Your task to perform on an android device: turn off notifications settings in the gmail app Image 0: 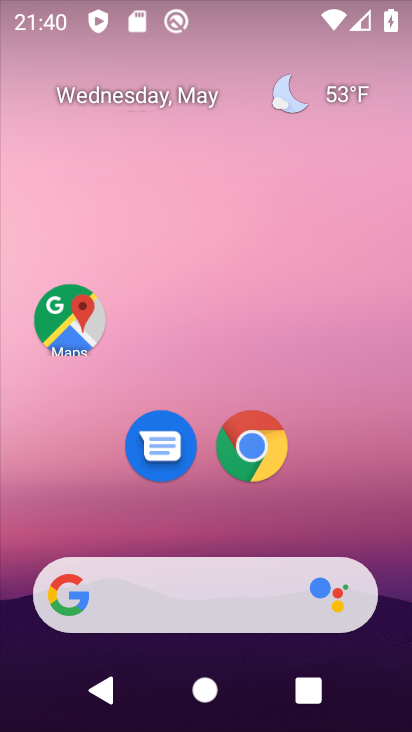
Step 0: drag from (374, 479) to (309, 71)
Your task to perform on an android device: turn off notifications settings in the gmail app Image 1: 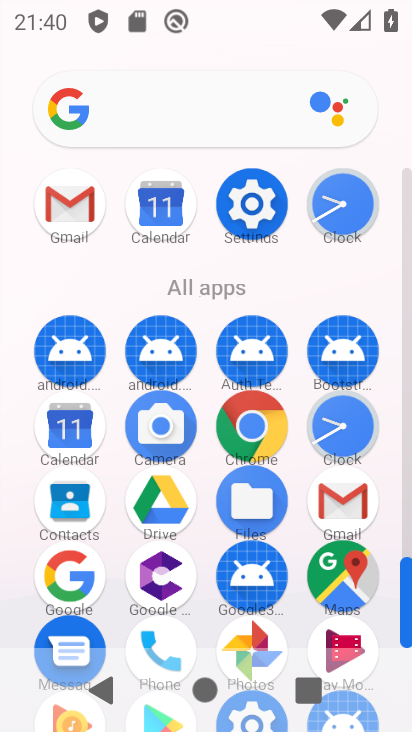
Step 1: click (327, 494)
Your task to perform on an android device: turn off notifications settings in the gmail app Image 2: 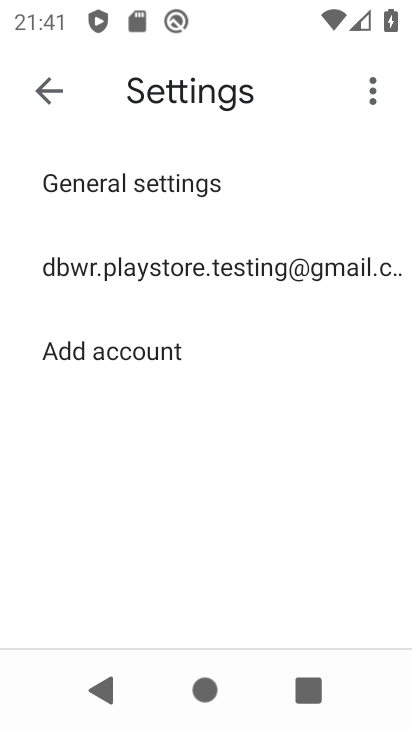
Step 2: click (191, 266)
Your task to perform on an android device: turn off notifications settings in the gmail app Image 3: 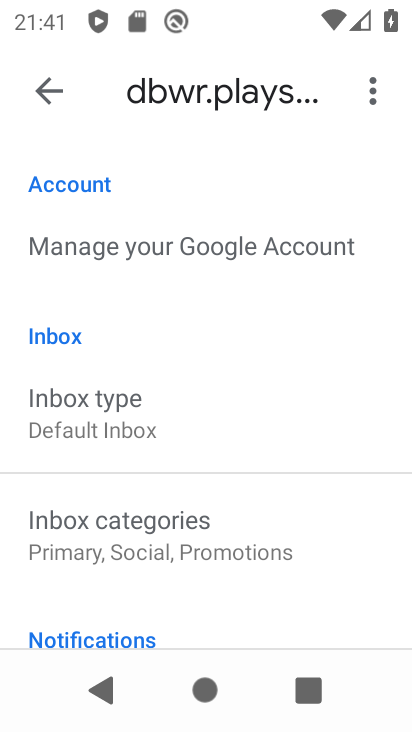
Step 3: drag from (277, 514) to (224, 267)
Your task to perform on an android device: turn off notifications settings in the gmail app Image 4: 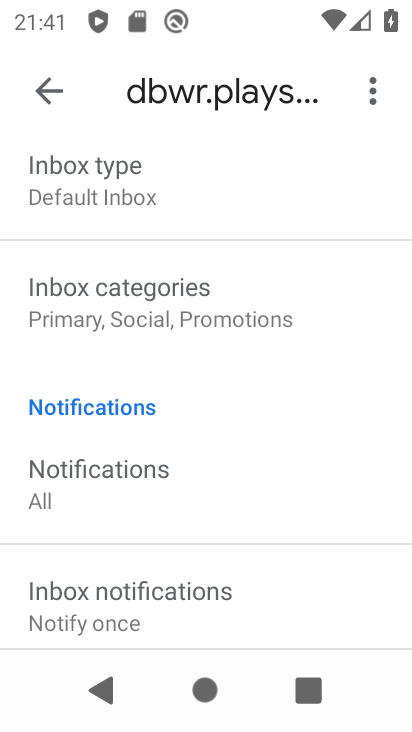
Step 4: drag from (216, 479) to (188, 195)
Your task to perform on an android device: turn off notifications settings in the gmail app Image 5: 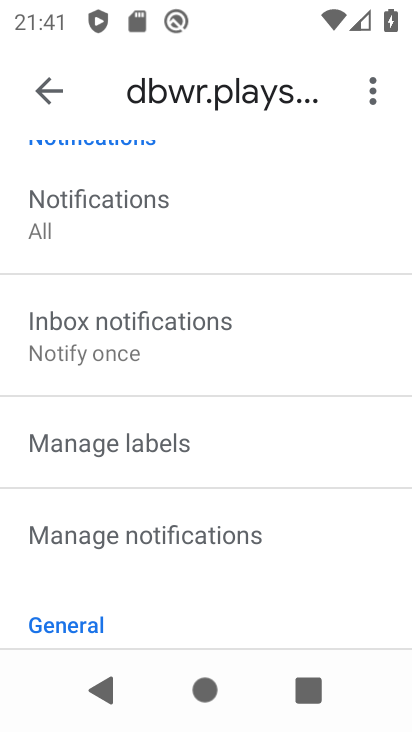
Step 5: click (194, 540)
Your task to perform on an android device: turn off notifications settings in the gmail app Image 6: 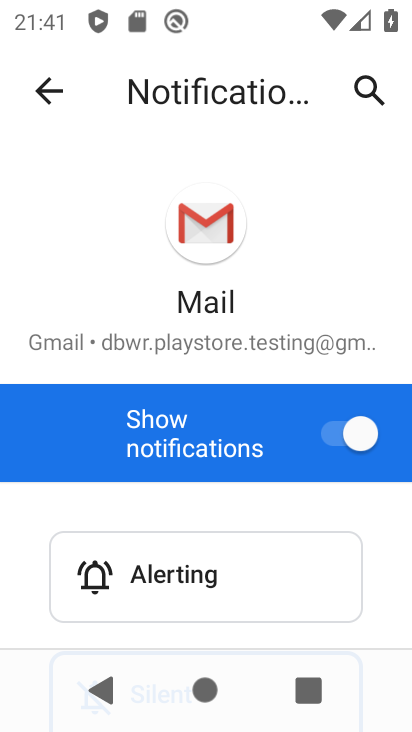
Step 6: click (360, 426)
Your task to perform on an android device: turn off notifications settings in the gmail app Image 7: 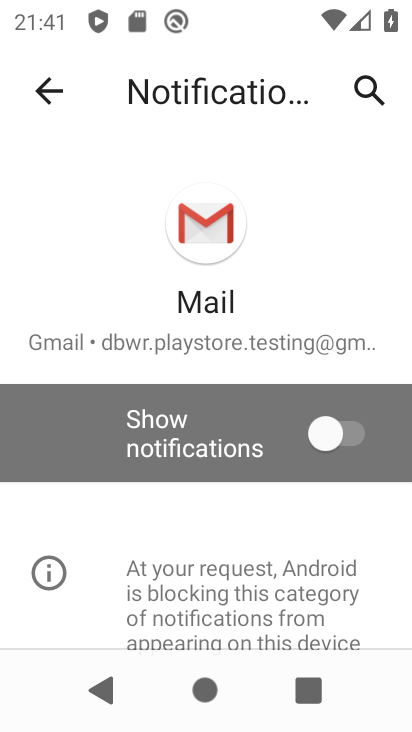
Step 7: task complete